Your task to perform on an android device: Go to CNN.com Image 0: 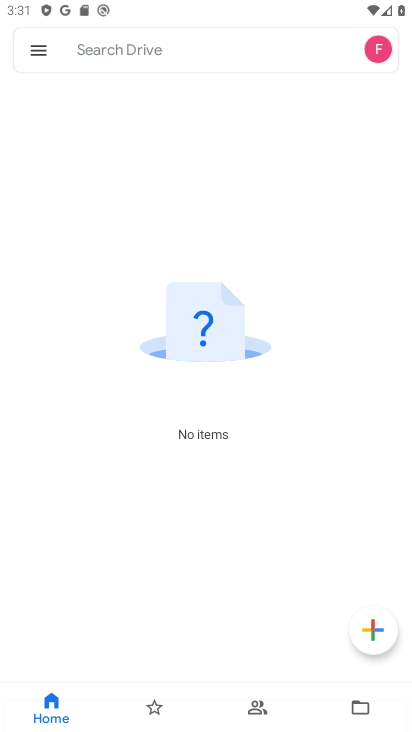
Step 0: press home button
Your task to perform on an android device: Go to CNN.com Image 1: 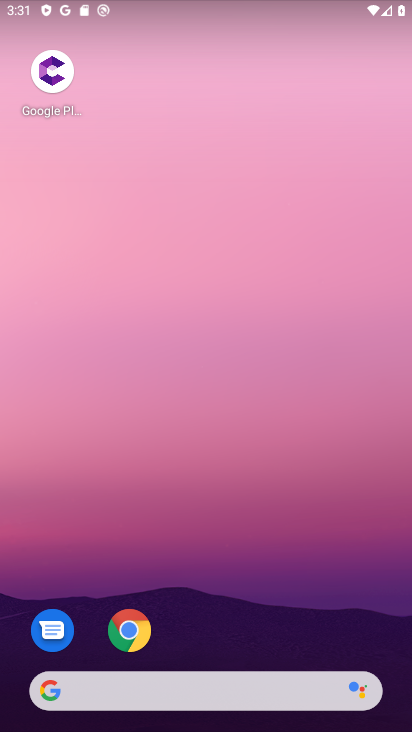
Step 1: click (128, 630)
Your task to perform on an android device: Go to CNN.com Image 2: 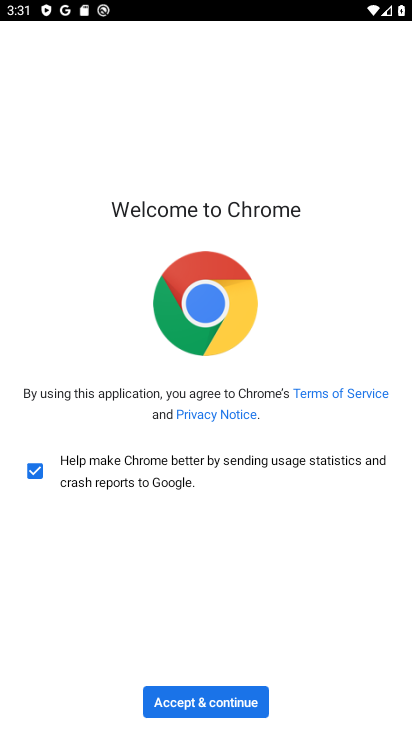
Step 2: click (202, 702)
Your task to perform on an android device: Go to CNN.com Image 3: 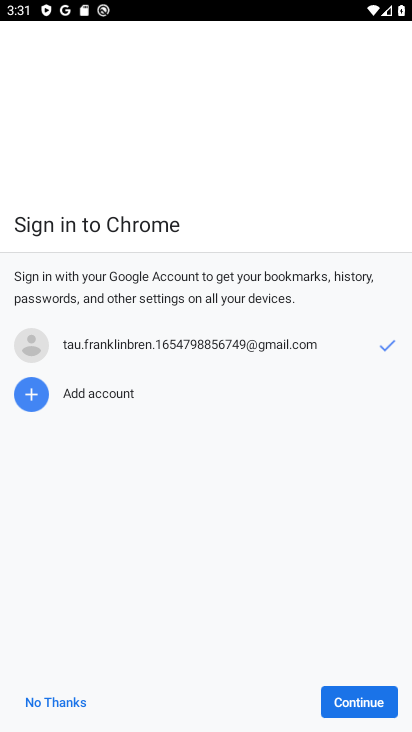
Step 3: click (58, 701)
Your task to perform on an android device: Go to CNN.com Image 4: 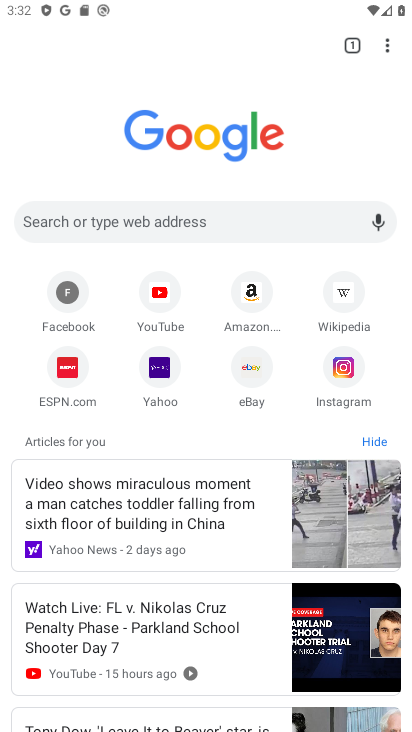
Step 4: click (302, 214)
Your task to perform on an android device: Go to CNN.com Image 5: 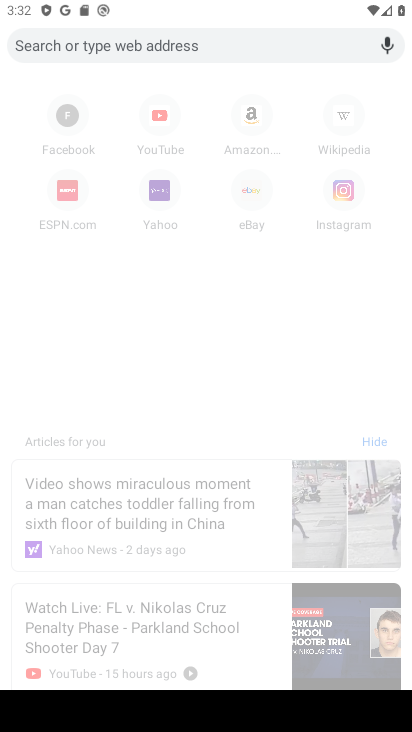
Step 5: type "cnn"
Your task to perform on an android device: Go to CNN.com Image 6: 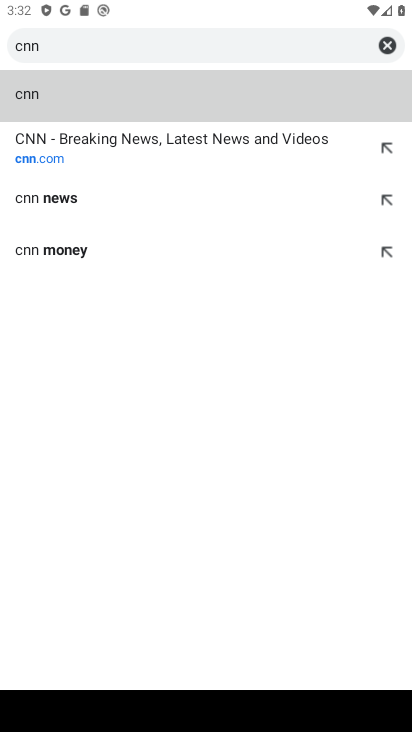
Step 6: click (136, 147)
Your task to perform on an android device: Go to CNN.com Image 7: 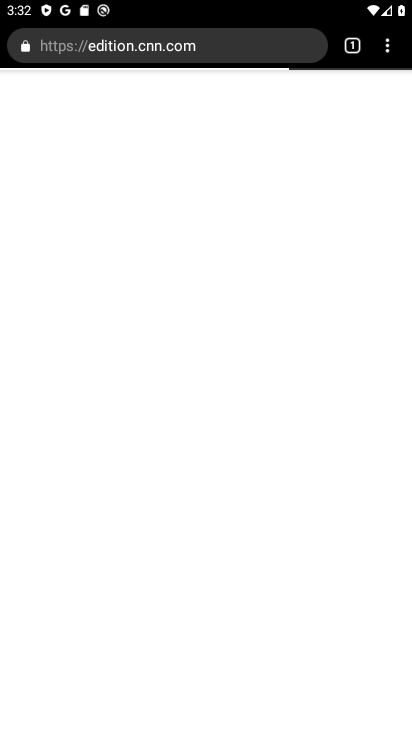
Step 7: task complete